Your task to perform on an android device: Go to battery settings Image 0: 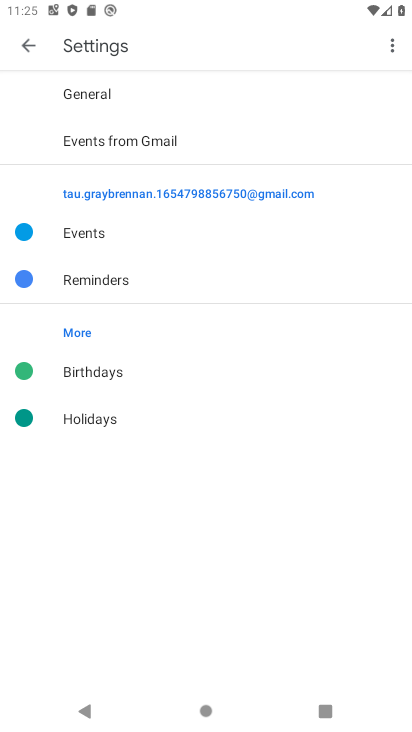
Step 0: press home button
Your task to perform on an android device: Go to battery settings Image 1: 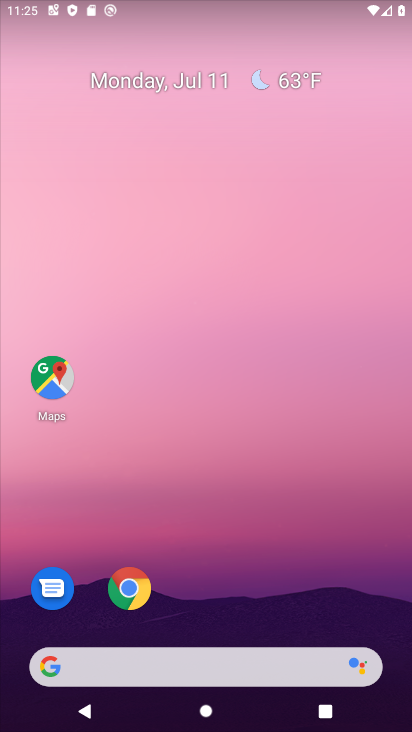
Step 1: drag from (256, 711) to (256, 120)
Your task to perform on an android device: Go to battery settings Image 2: 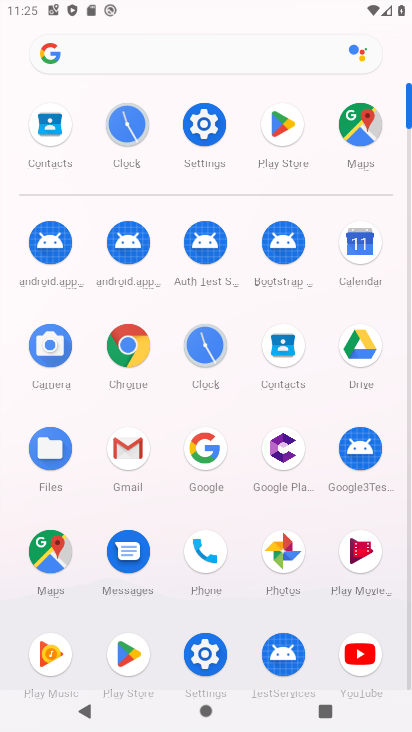
Step 2: click (208, 130)
Your task to perform on an android device: Go to battery settings Image 3: 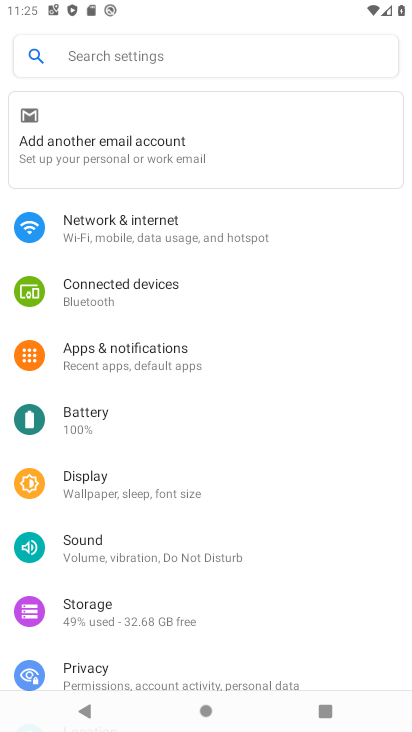
Step 3: click (85, 417)
Your task to perform on an android device: Go to battery settings Image 4: 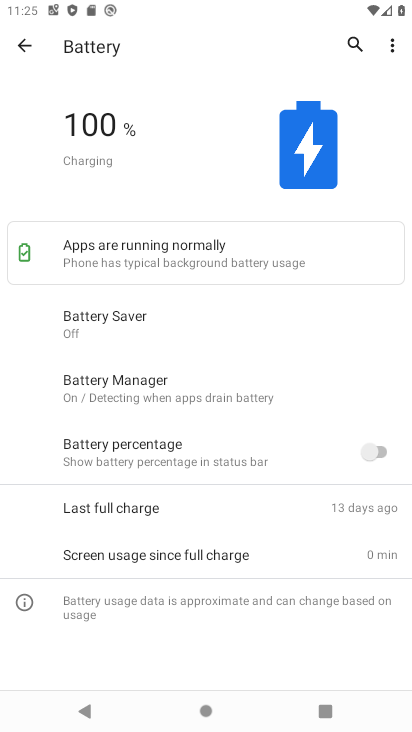
Step 4: task complete